Your task to perform on an android device: Show me recent news Image 0: 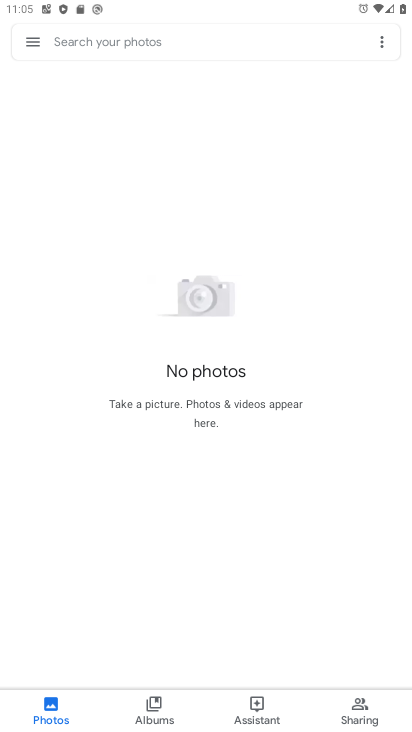
Step 0: press home button
Your task to perform on an android device: Show me recent news Image 1: 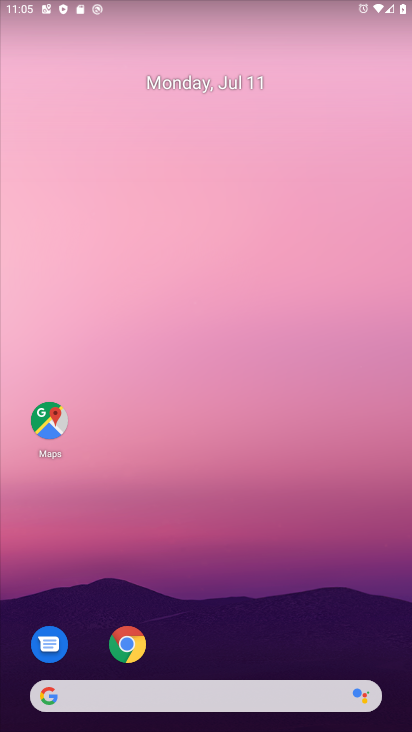
Step 1: task complete